Your task to perform on an android device: turn off improve location accuracy Image 0: 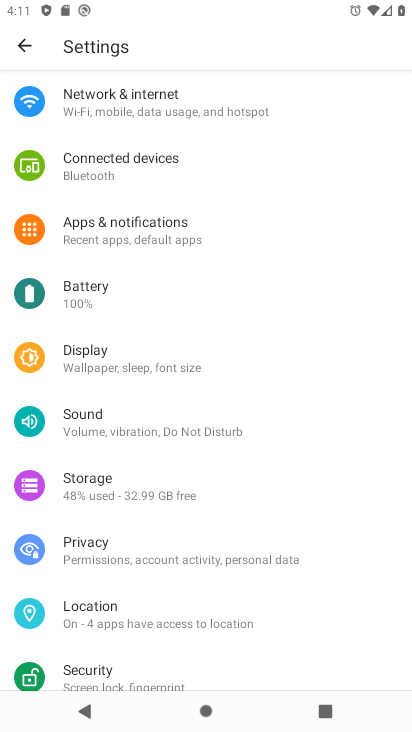
Step 0: press home button
Your task to perform on an android device: turn off improve location accuracy Image 1: 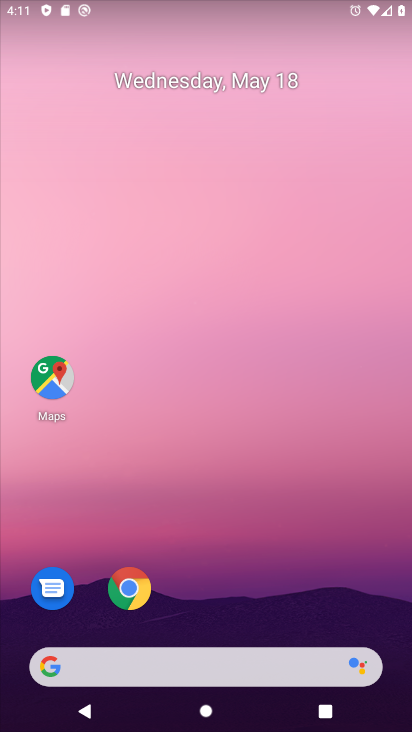
Step 1: drag from (270, 609) to (258, 259)
Your task to perform on an android device: turn off improve location accuracy Image 2: 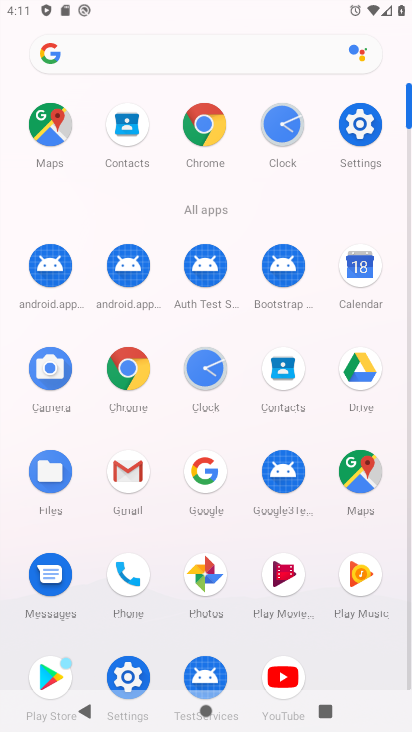
Step 2: click (360, 134)
Your task to perform on an android device: turn off improve location accuracy Image 3: 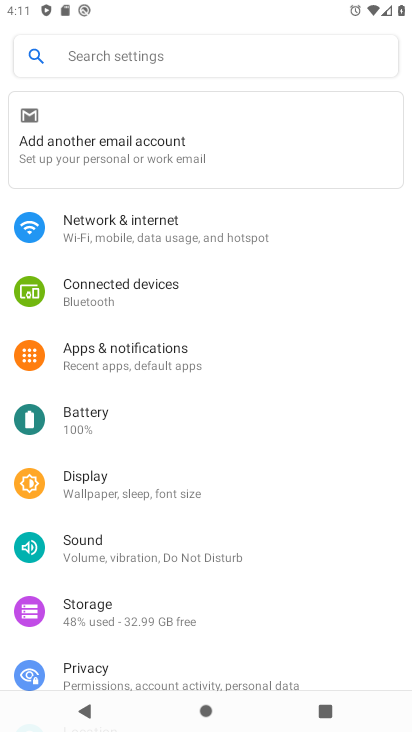
Step 3: drag from (177, 500) to (209, 231)
Your task to perform on an android device: turn off improve location accuracy Image 4: 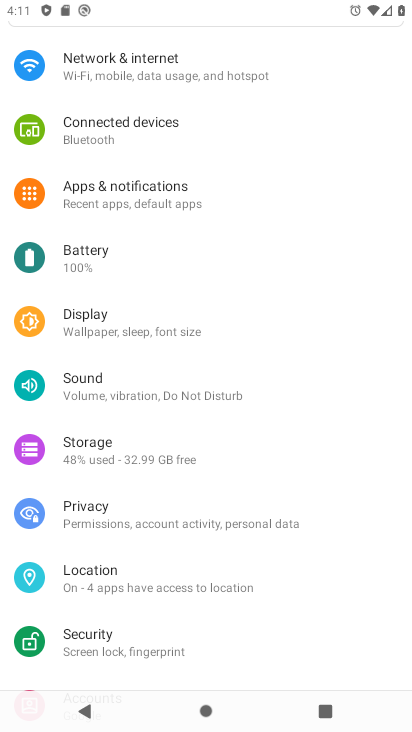
Step 4: drag from (172, 433) to (241, 246)
Your task to perform on an android device: turn off improve location accuracy Image 5: 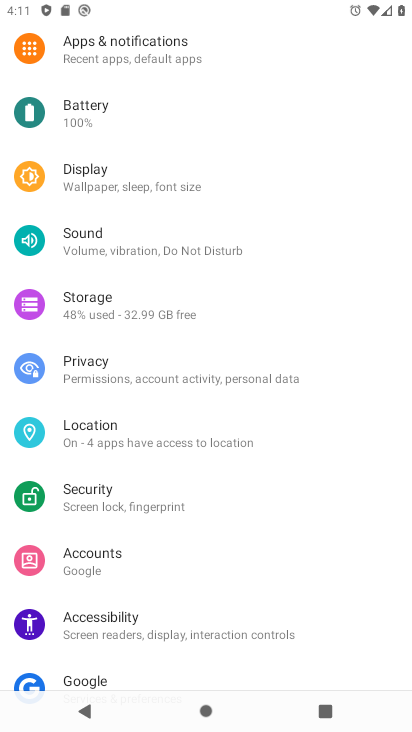
Step 5: click (137, 428)
Your task to perform on an android device: turn off improve location accuracy Image 6: 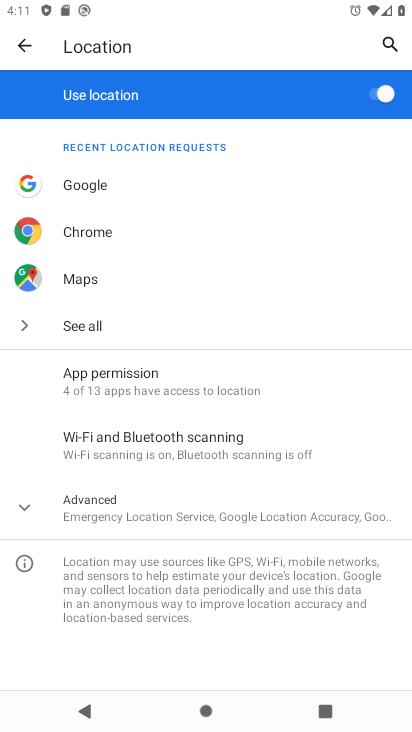
Step 6: click (142, 482)
Your task to perform on an android device: turn off improve location accuracy Image 7: 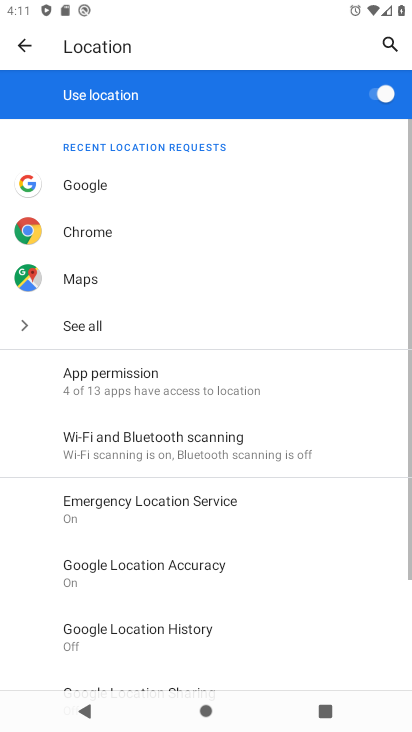
Step 7: drag from (237, 629) to (306, 326)
Your task to perform on an android device: turn off improve location accuracy Image 8: 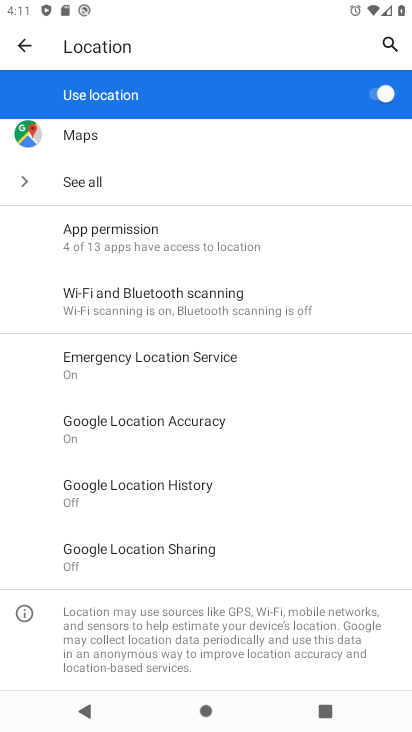
Step 8: click (158, 428)
Your task to perform on an android device: turn off improve location accuracy Image 9: 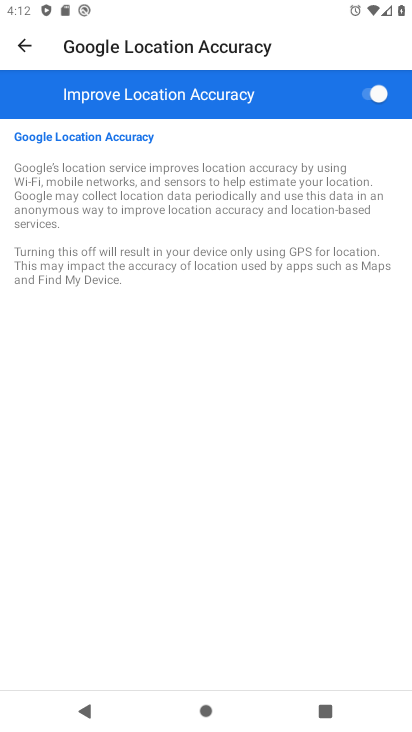
Step 9: click (372, 87)
Your task to perform on an android device: turn off improve location accuracy Image 10: 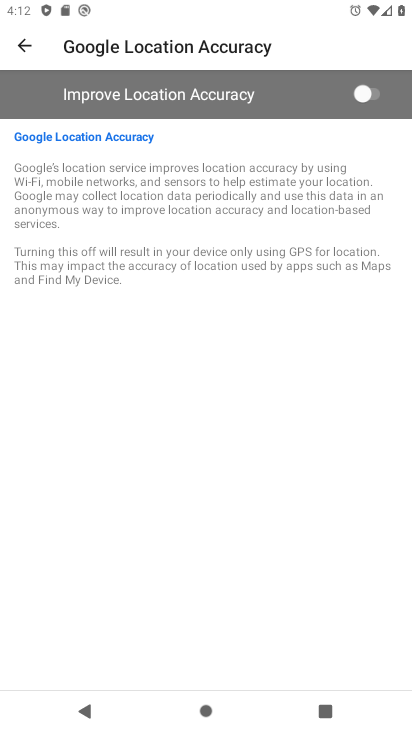
Step 10: task complete